Your task to perform on an android device: Open the Play Movies app and select the watchlist tab. Image 0: 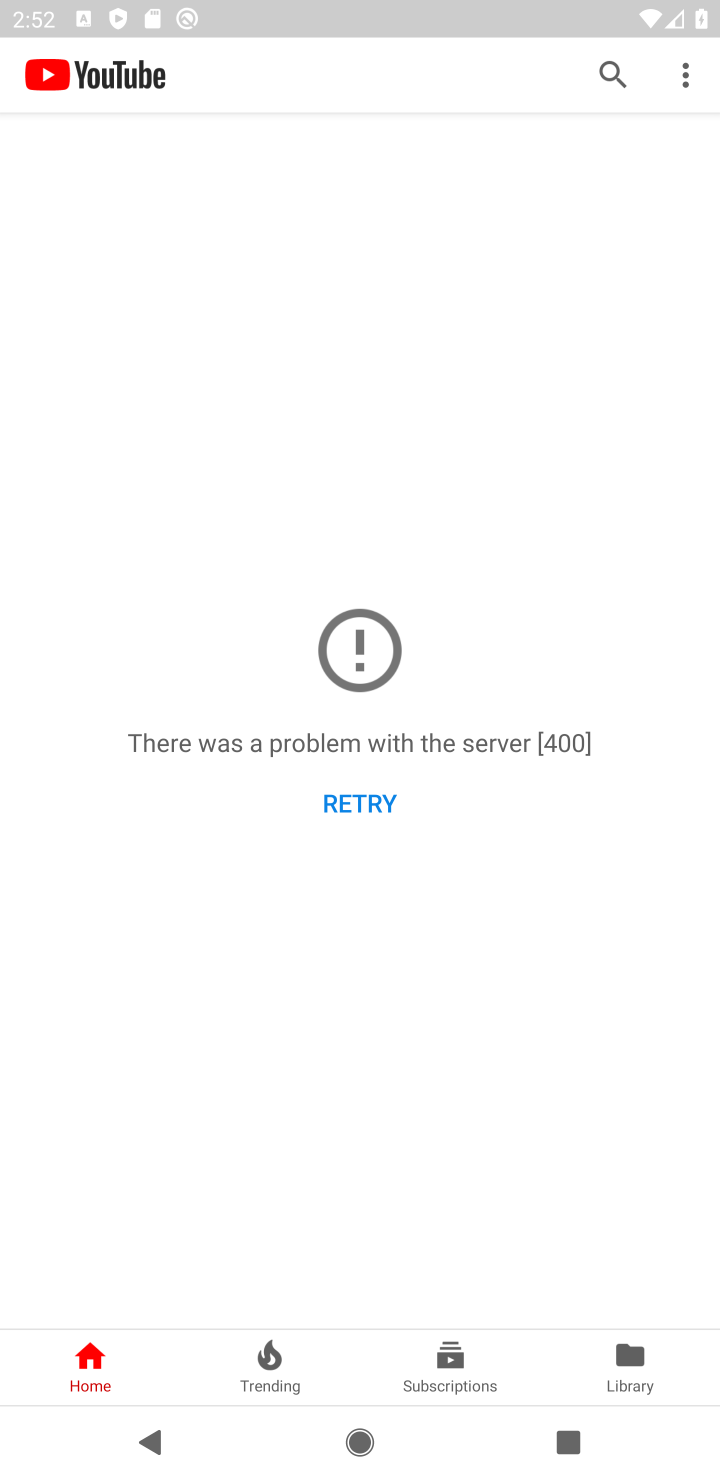
Step 0: press home button
Your task to perform on an android device: Open the Play Movies app and select the watchlist tab. Image 1: 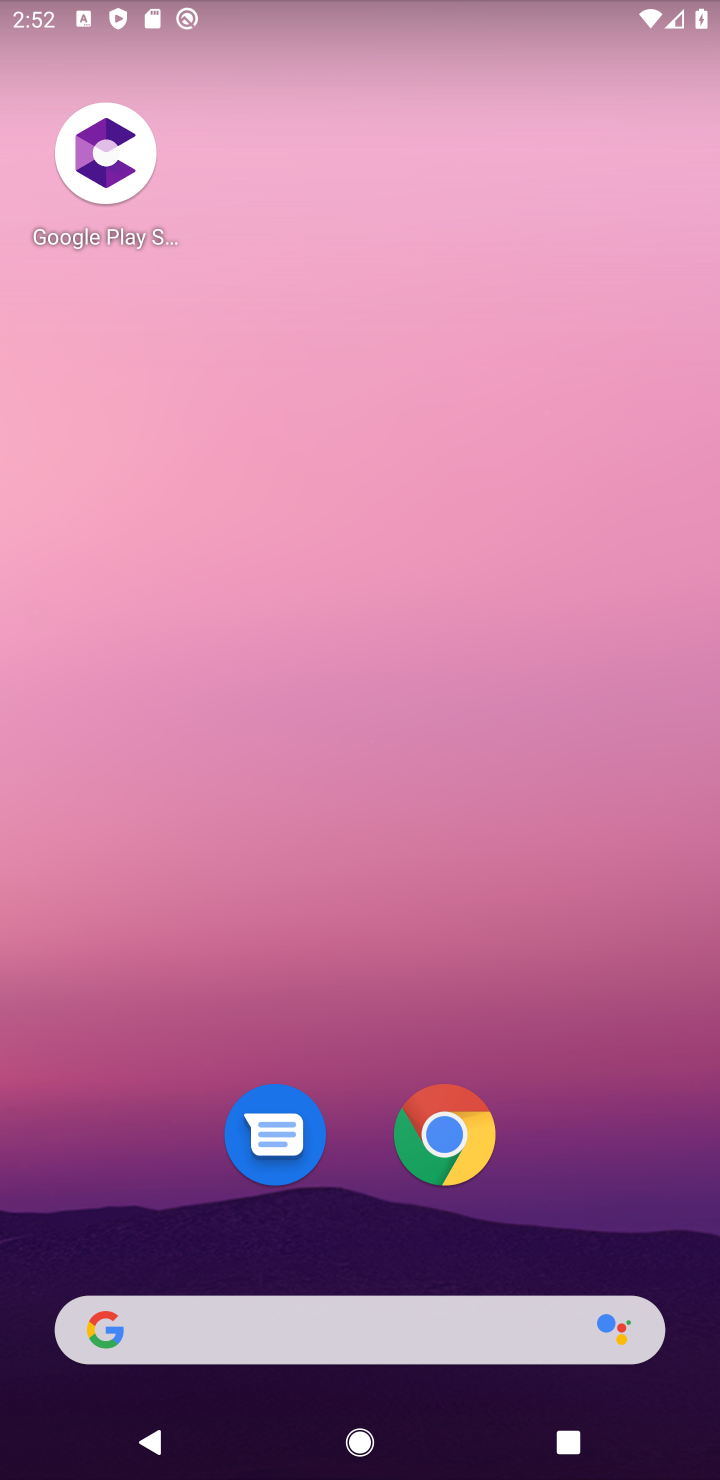
Step 1: drag from (363, 785) to (416, 370)
Your task to perform on an android device: Open the Play Movies app and select the watchlist tab. Image 2: 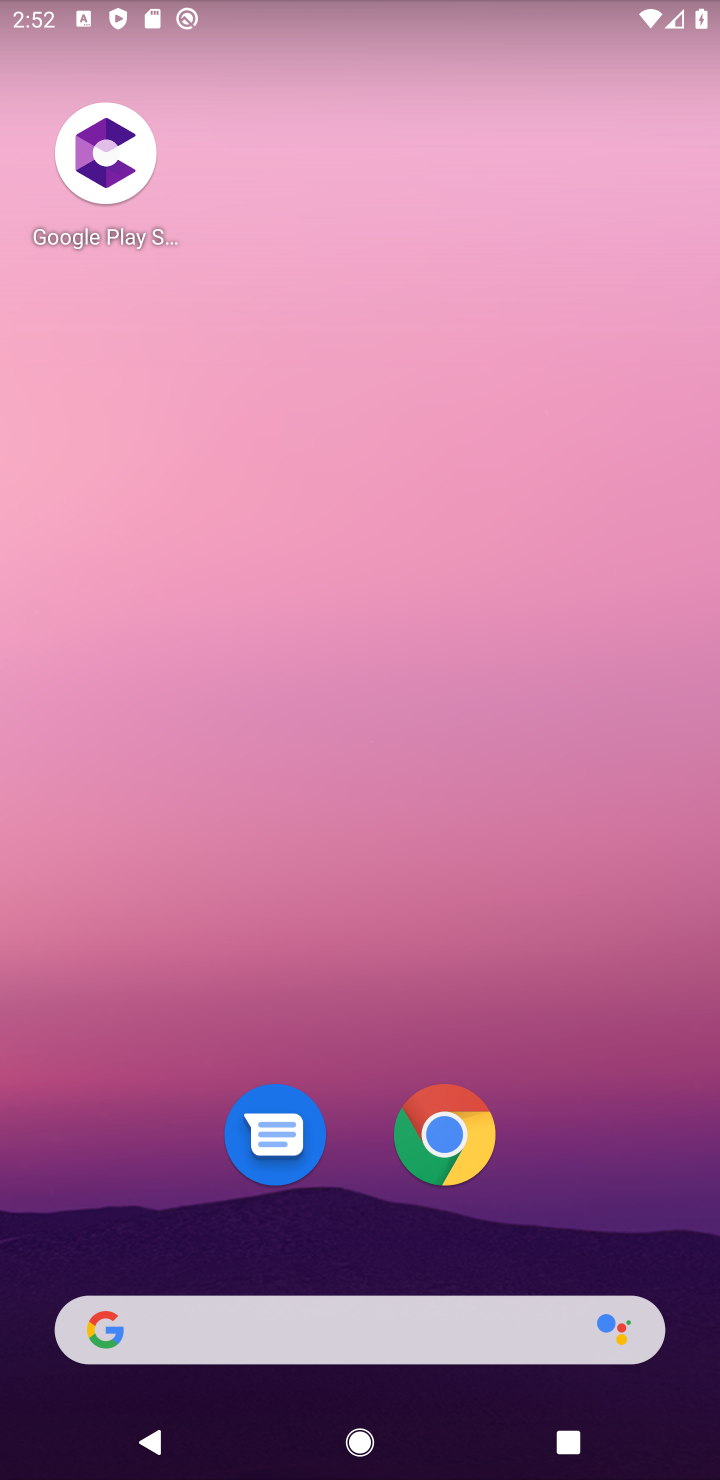
Step 2: drag from (579, 1069) to (540, 495)
Your task to perform on an android device: Open the Play Movies app and select the watchlist tab. Image 3: 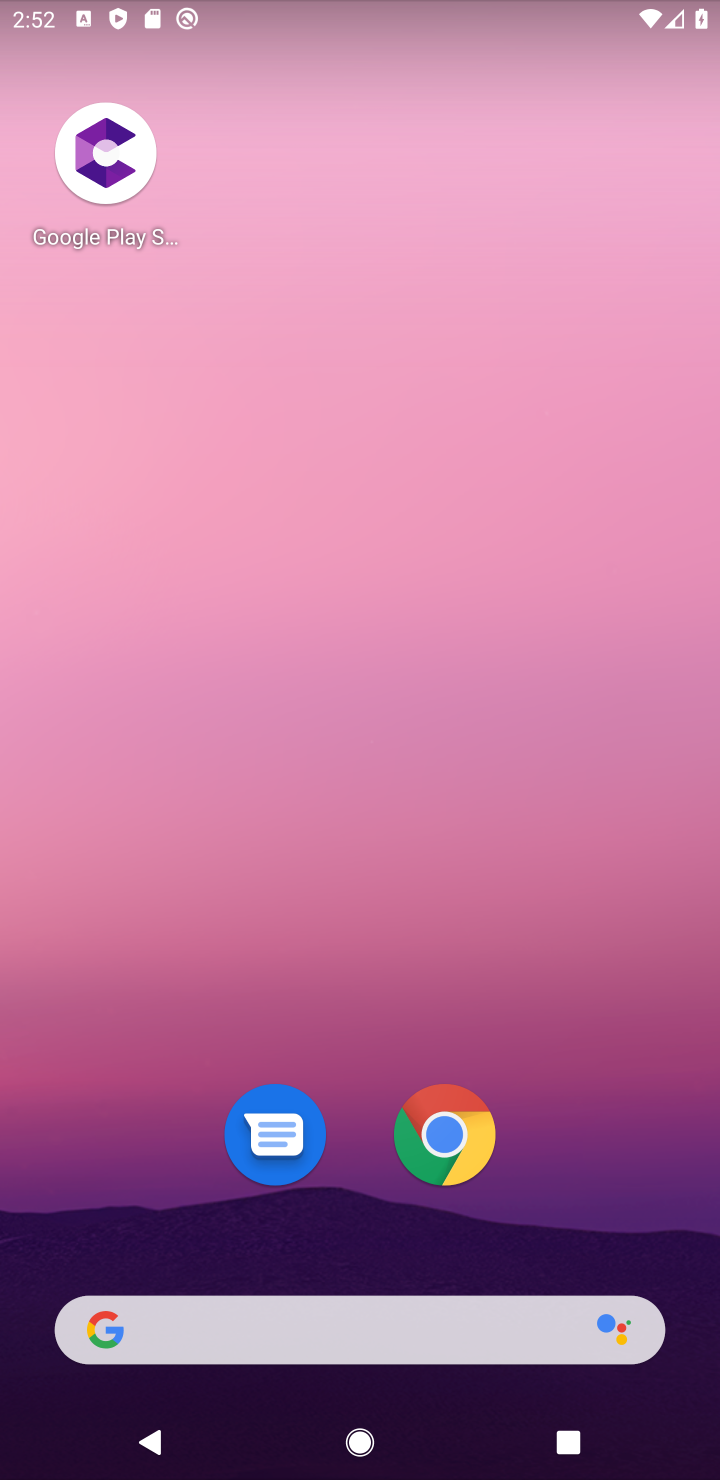
Step 3: drag from (261, 409) to (289, 114)
Your task to perform on an android device: Open the Play Movies app and select the watchlist tab. Image 4: 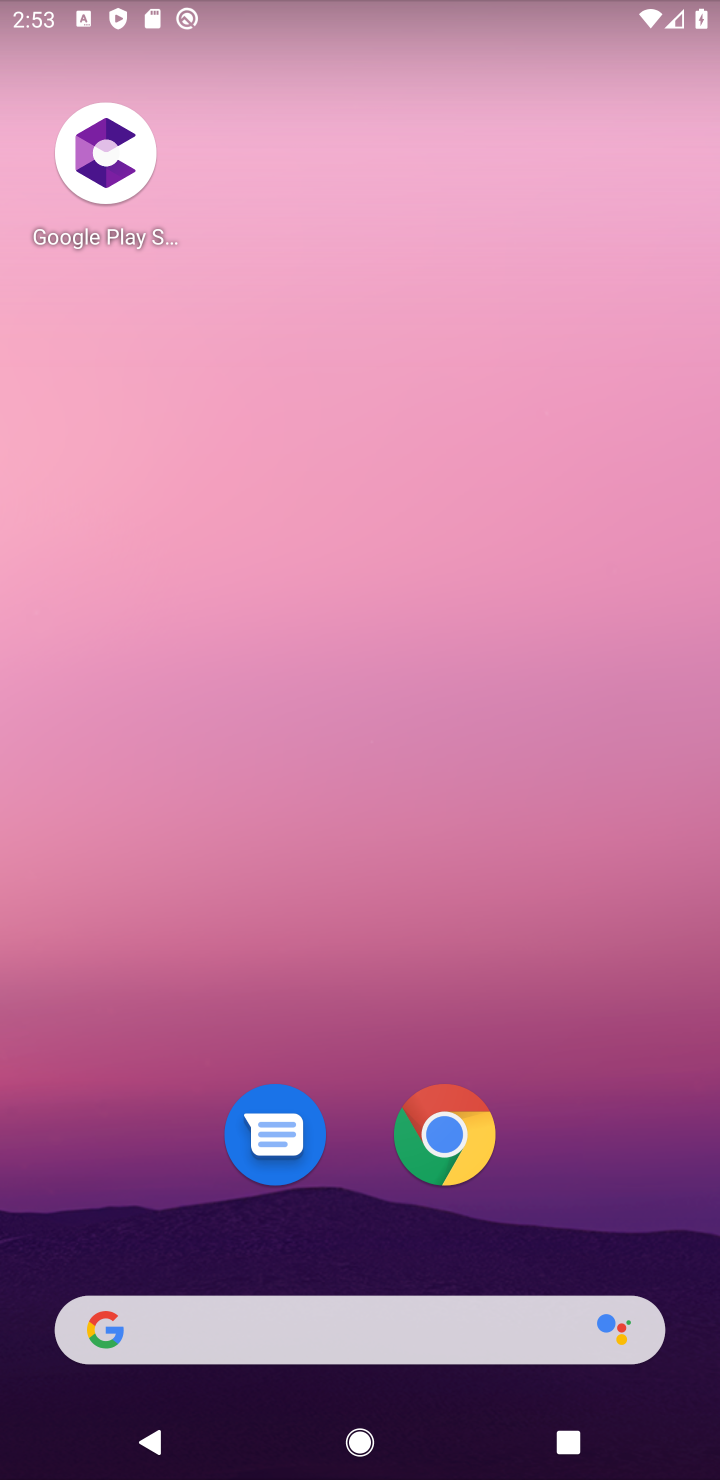
Step 4: drag from (135, 570) to (152, 286)
Your task to perform on an android device: Open the Play Movies app and select the watchlist tab. Image 5: 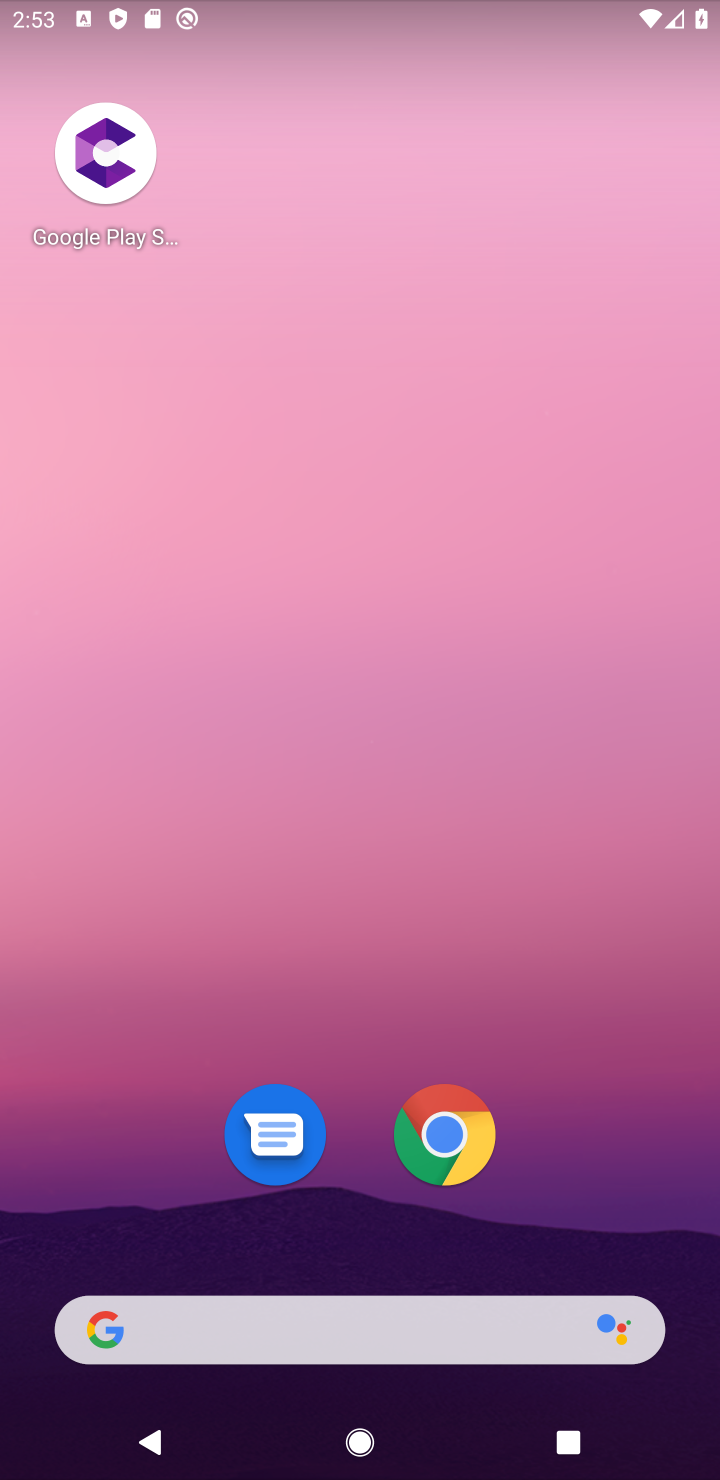
Step 5: drag from (468, 1032) to (311, 268)
Your task to perform on an android device: Open the Play Movies app and select the watchlist tab. Image 6: 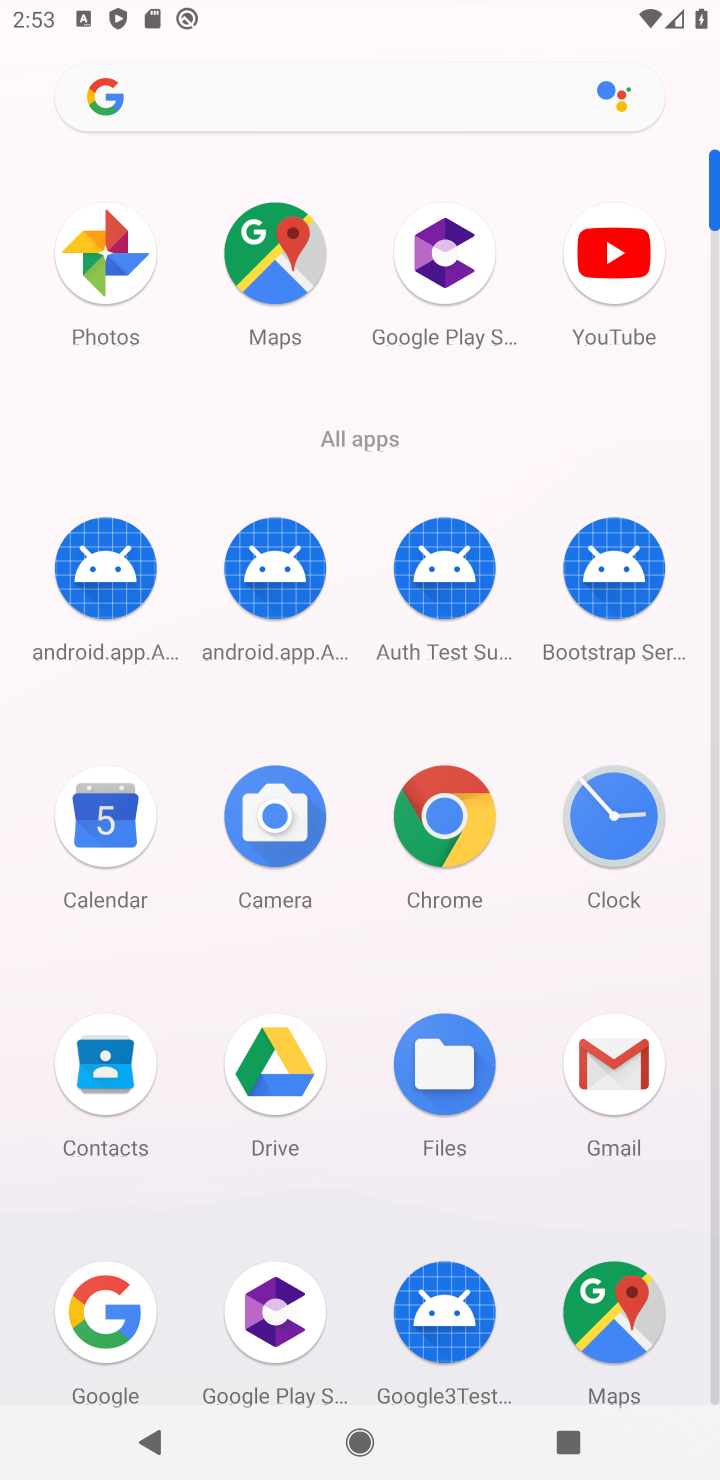
Step 6: drag from (410, 1232) to (415, 257)
Your task to perform on an android device: Open the Play Movies app and select the watchlist tab. Image 7: 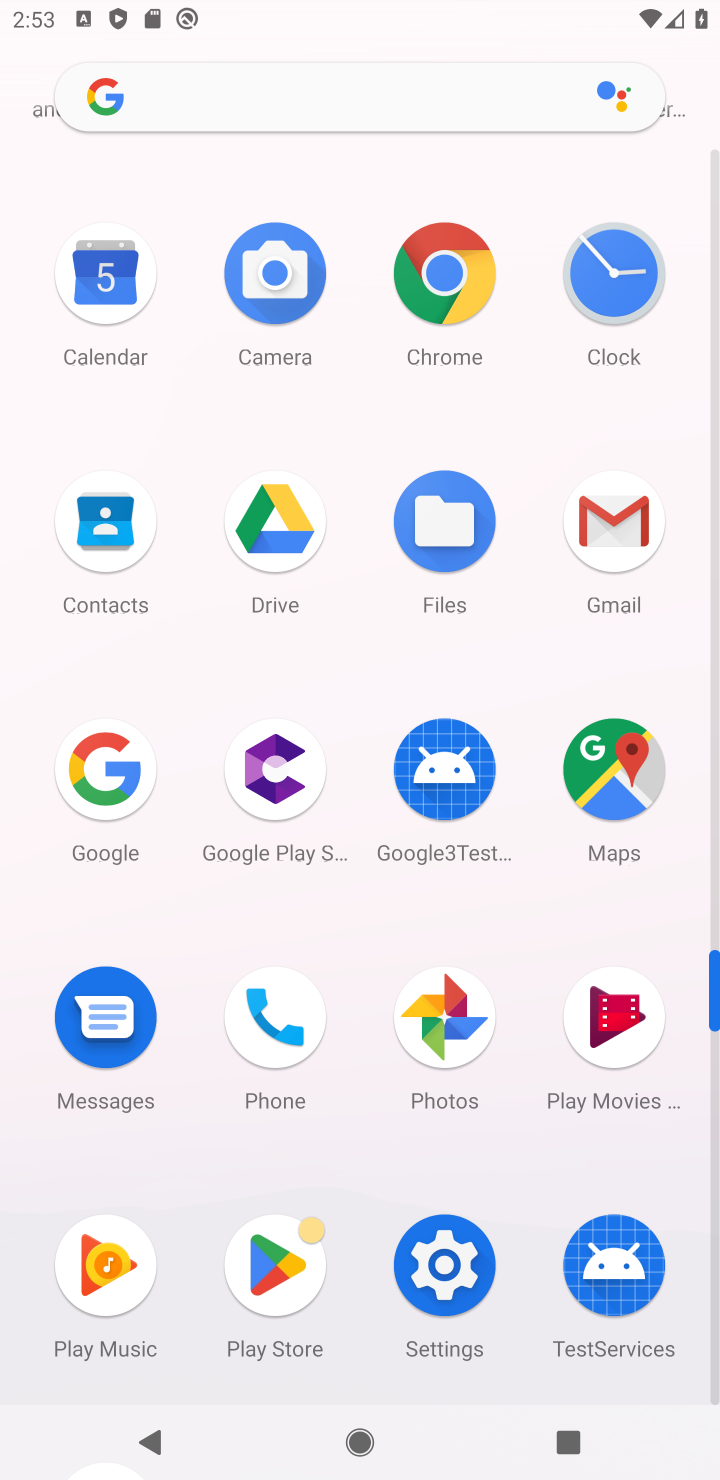
Step 7: drag from (354, 1238) to (307, 352)
Your task to perform on an android device: Open the Play Movies app and select the watchlist tab. Image 8: 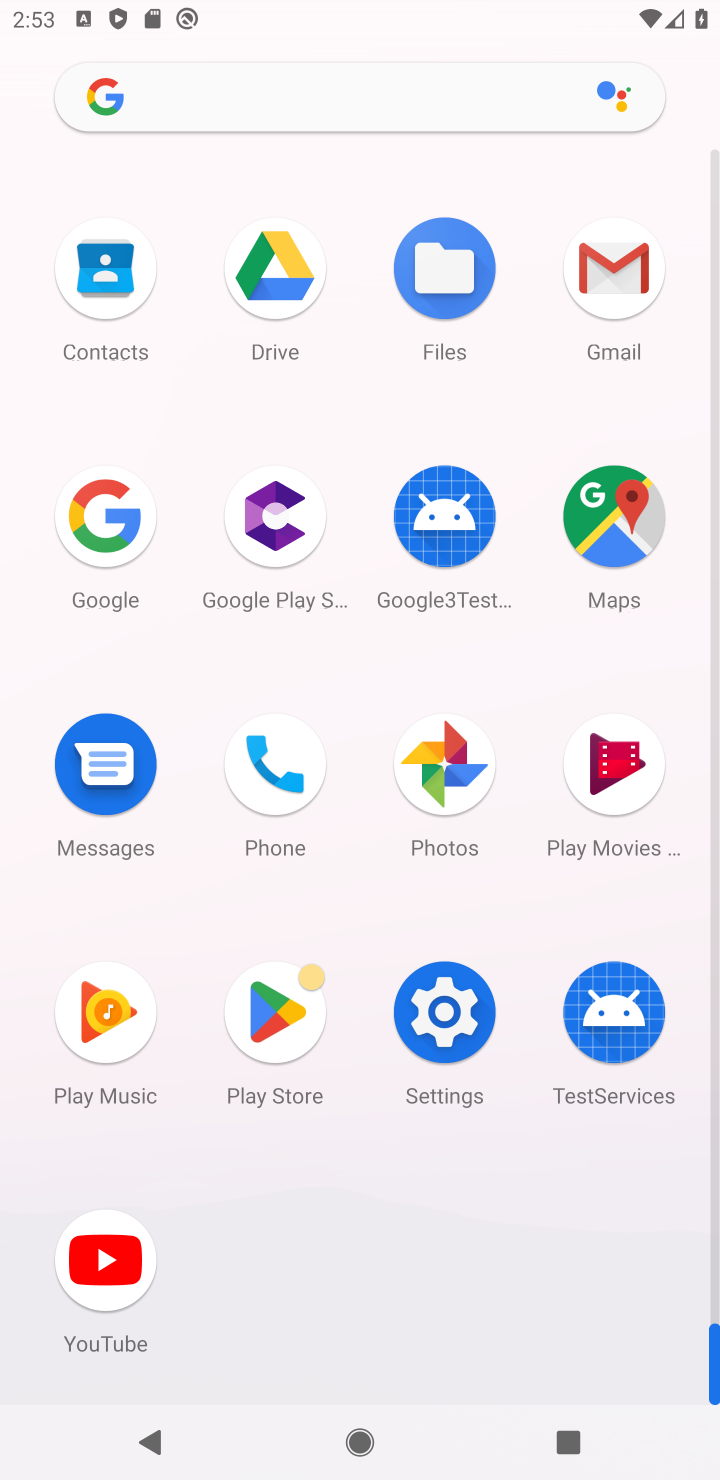
Step 8: click (591, 755)
Your task to perform on an android device: Open the Play Movies app and select the watchlist tab. Image 9: 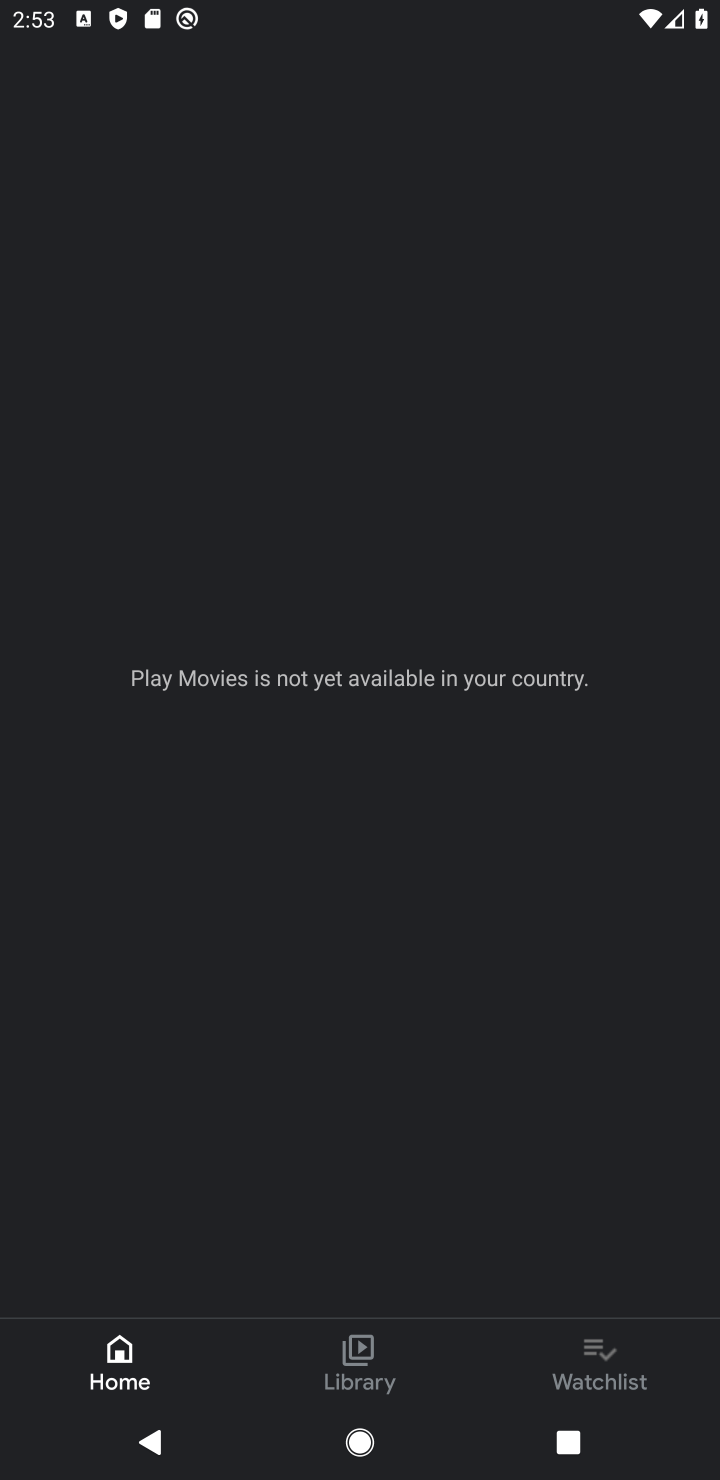
Step 9: task complete